Your task to perform on an android device: Open the map Image 0: 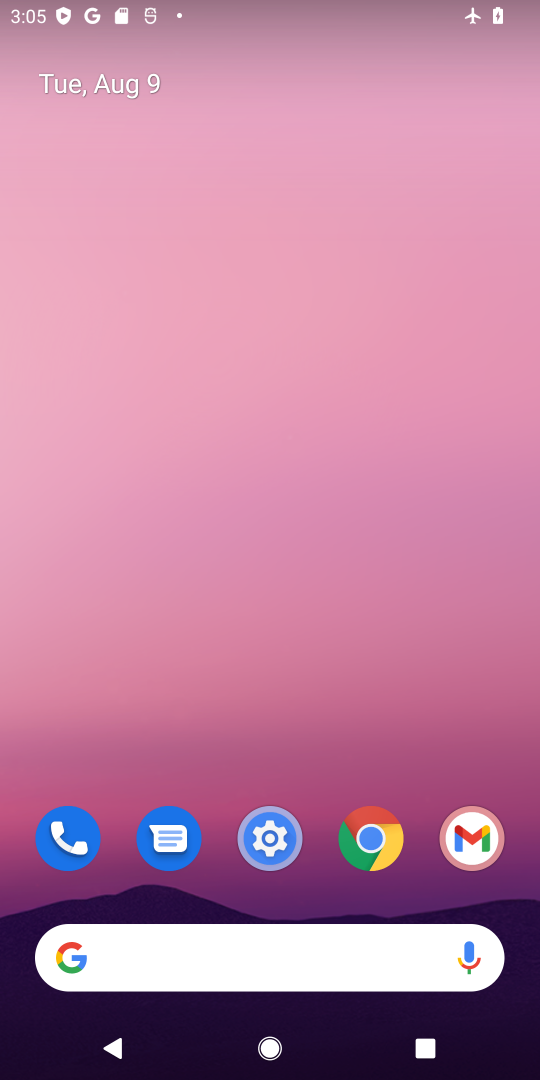
Step 0: drag from (298, 662) to (399, 168)
Your task to perform on an android device: Open the map Image 1: 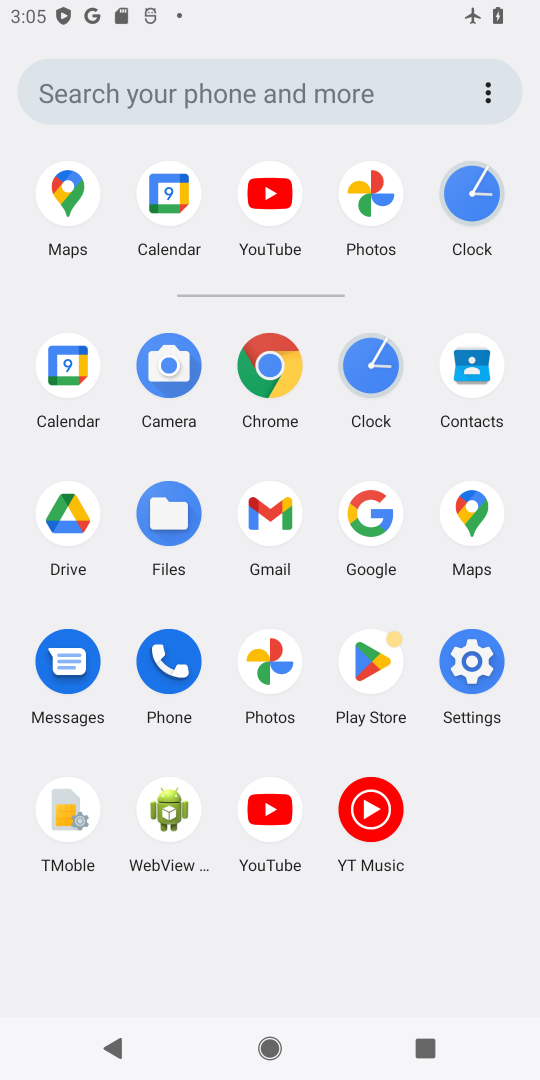
Step 1: click (471, 508)
Your task to perform on an android device: Open the map Image 2: 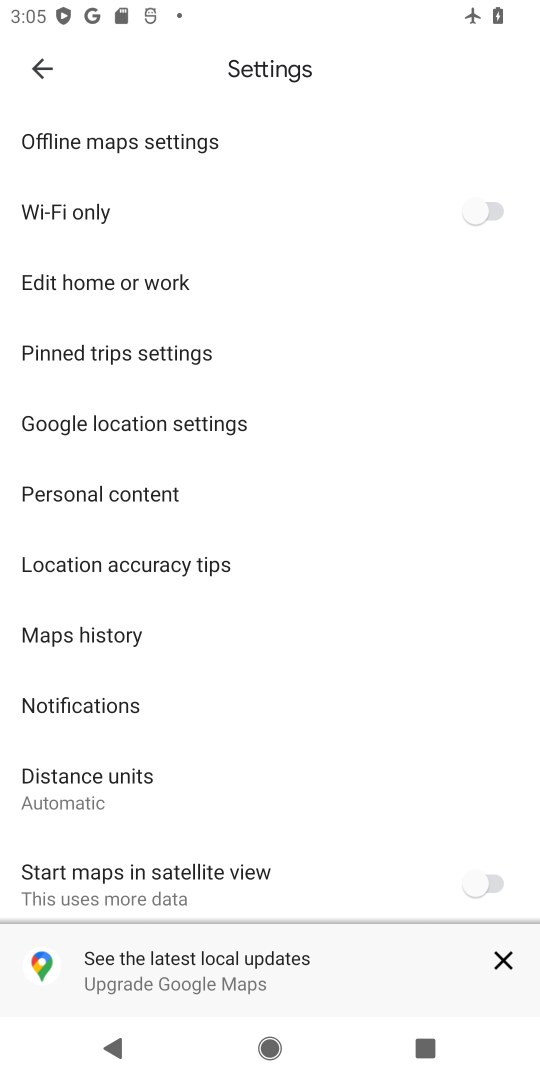
Step 2: click (45, 50)
Your task to perform on an android device: Open the map Image 3: 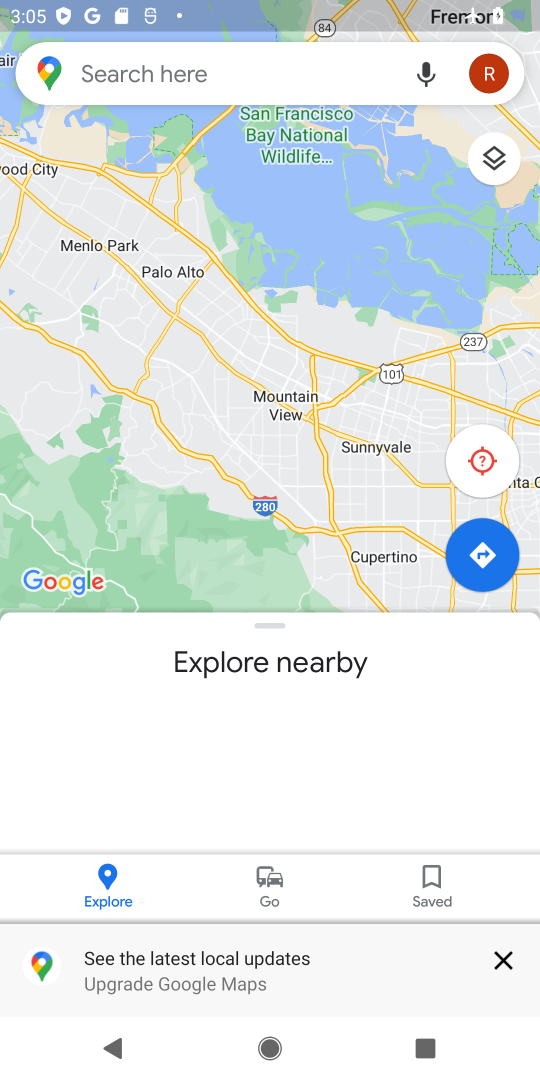
Step 3: task complete